Your task to perform on an android device: toggle wifi Image 0: 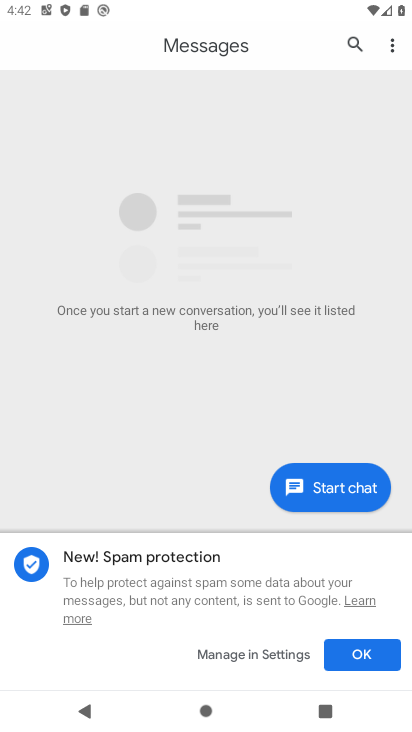
Step 0: press home button
Your task to perform on an android device: toggle wifi Image 1: 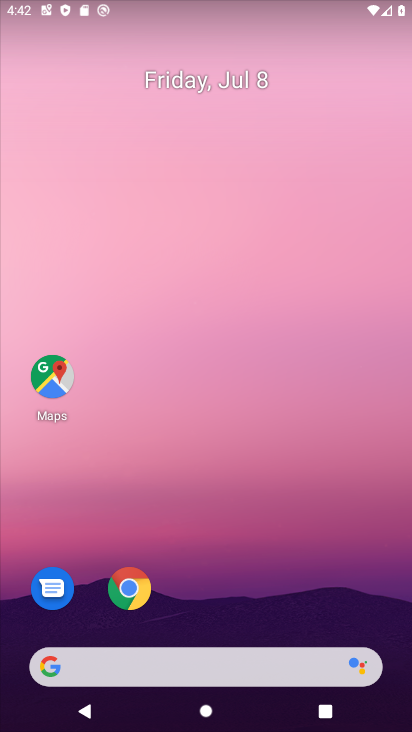
Step 1: drag from (227, 611) to (257, 42)
Your task to perform on an android device: toggle wifi Image 2: 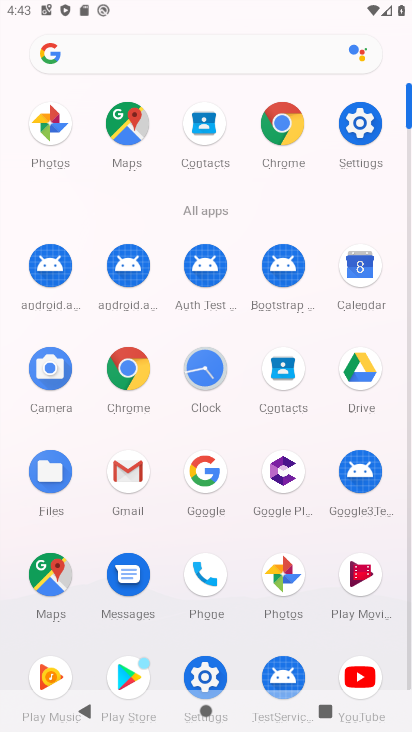
Step 2: click (363, 128)
Your task to perform on an android device: toggle wifi Image 3: 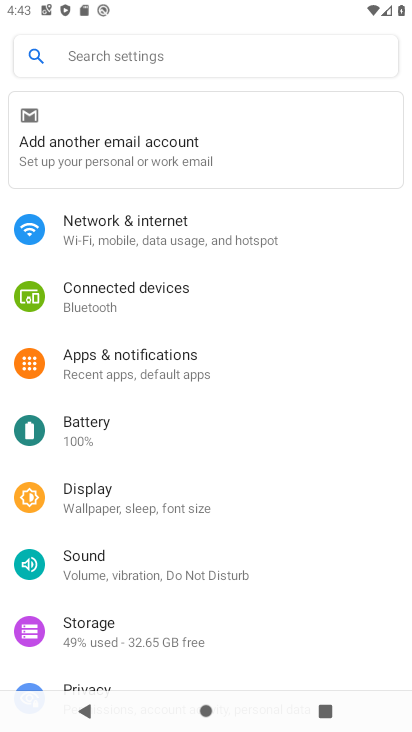
Step 3: click (93, 227)
Your task to perform on an android device: toggle wifi Image 4: 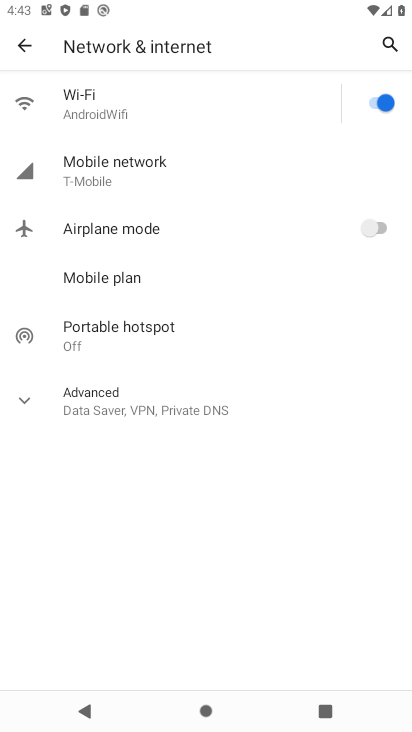
Step 4: click (379, 97)
Your task to perform on an android device: toggle wifi Image 5: 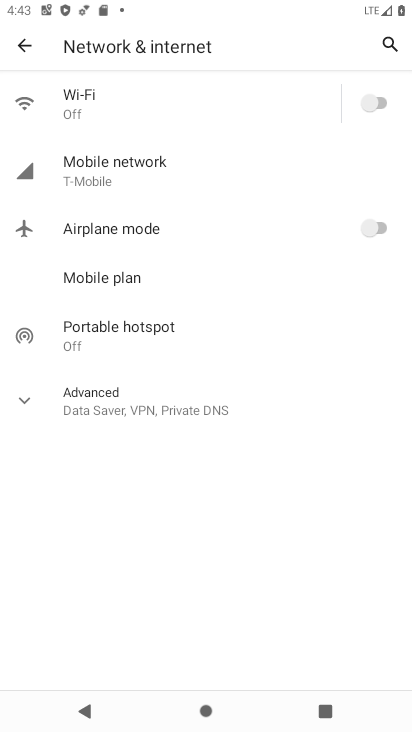
Step 5: task complete